Your task to perform on an android device: turn off location Image 0: 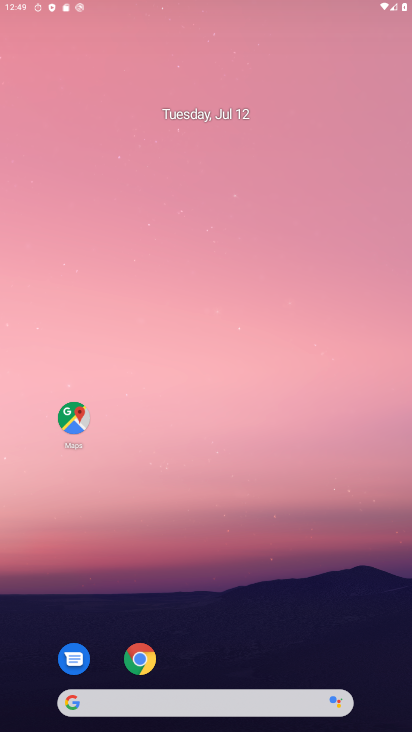
Step 0: drag from (233, 625) to (239, 77)
Your task to perform on an android device: turn off location Image 1: 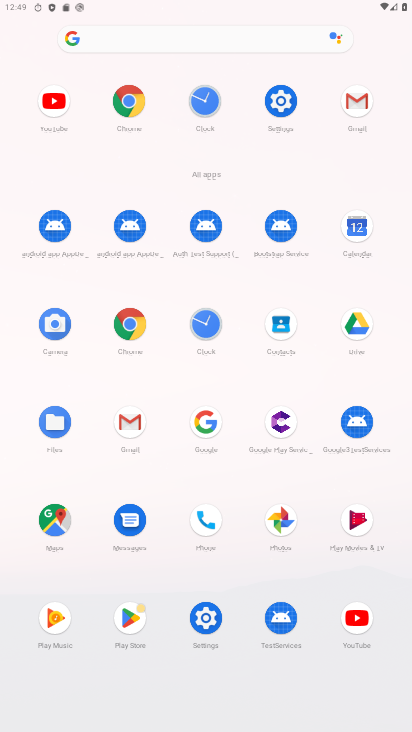
Step 1: click (282, 102)
Your task to perform on an android device: turn off location Image 2: 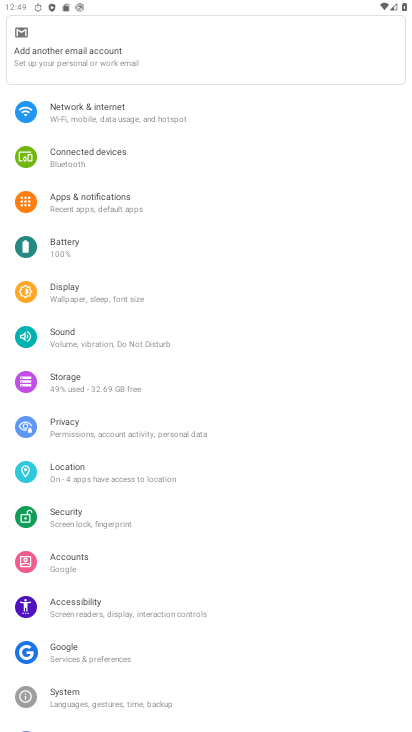
Step 2: click (105, 477)
Your task to perform on an android device: turn off location Image 3: 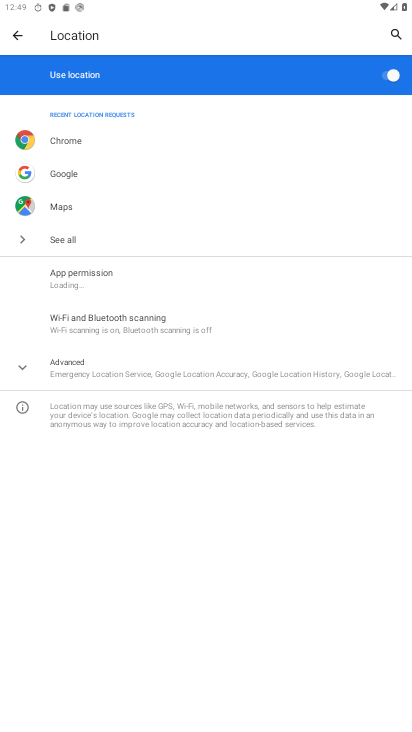
Step 3: click (394, 83)
Your task to perform on an android device: turn off location Image 4: 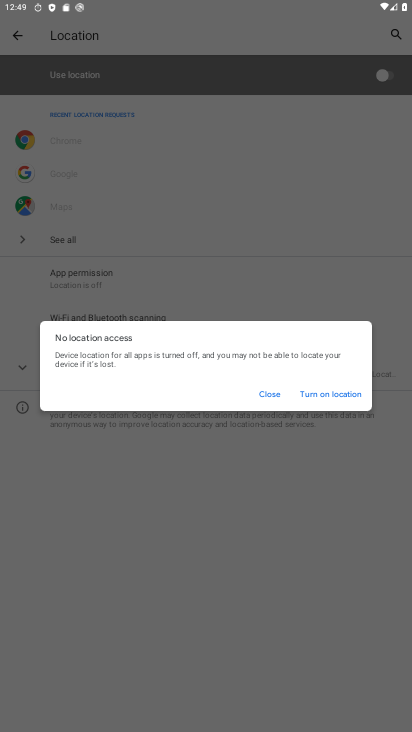
Step 4: task complete